Your task to perform on an android device: Open settings Image 0: 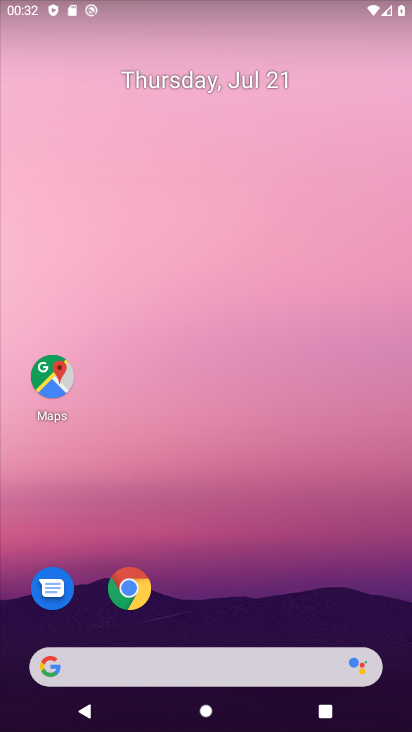
Step 0: drag from (305, 566) to (269, 51)
Your task to perform on an android device: Open settings Image 1: 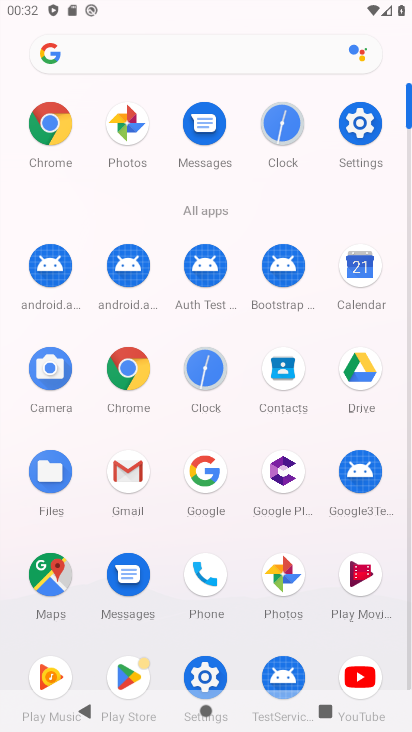
Step 1: click (355, 127)
Your task to perform on an android device: Open settings Image 2: 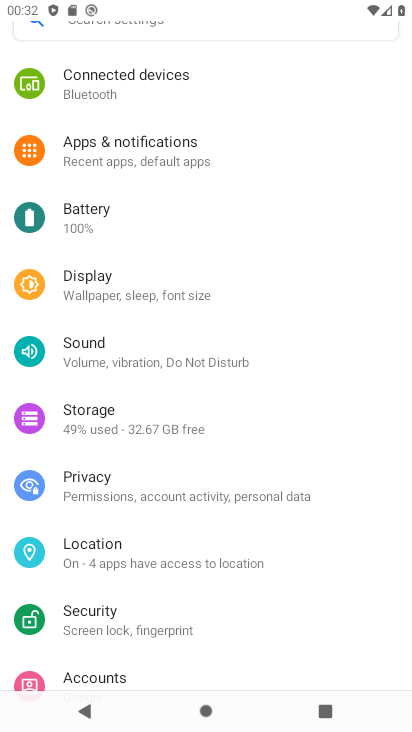
Step 2: task complete